Your task to perform on an android device: turn off smart reply in the gmail app Image 0: 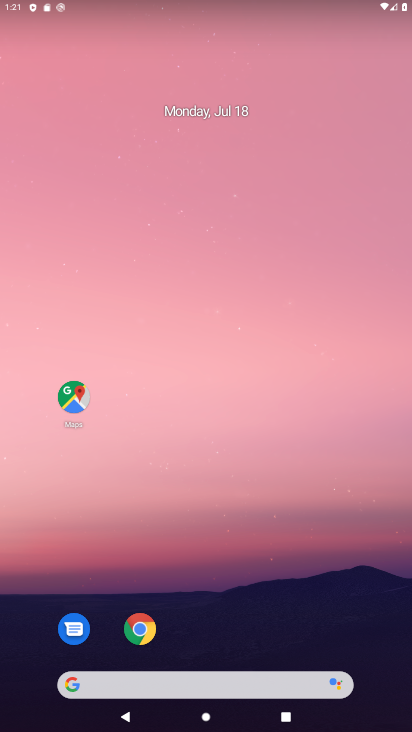
Step 0: press home button
Your task to perform on an android device: turn off smart reply in the gmail app Image 1: 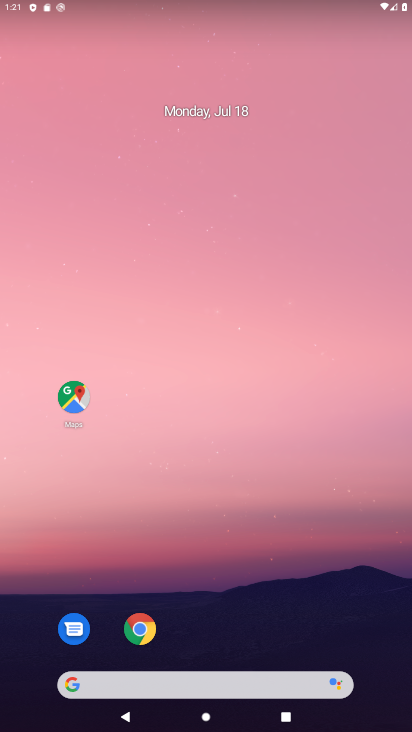
Step 1: drag from (203, 638) to (208, 8)
Your task to perform on an android device: turn off smart reply in the gmail app Image 2: 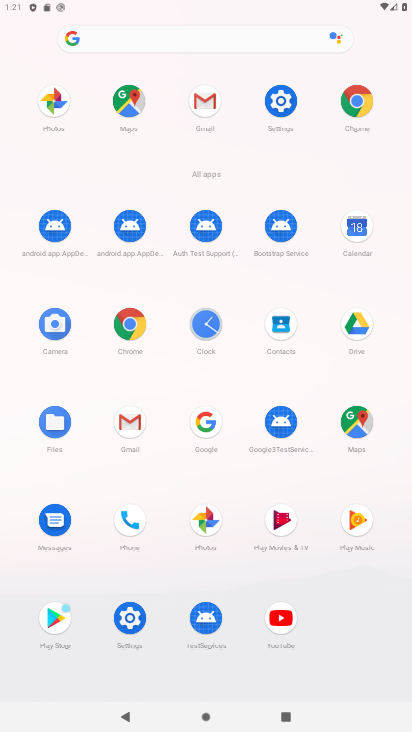
Step 2: click (127, 415)
Your task to perform on an android device: turn off smart reply in the gmail app Image 3: 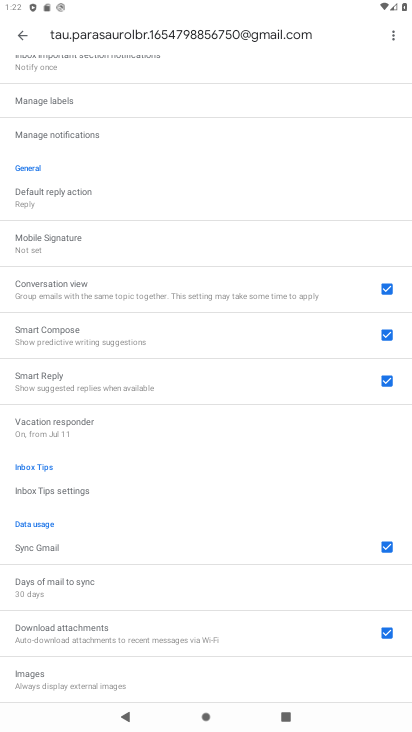
Step 3: click (373, 382)
Your task to perform on an android device: turn off smart reply in the gmail app Image 4: 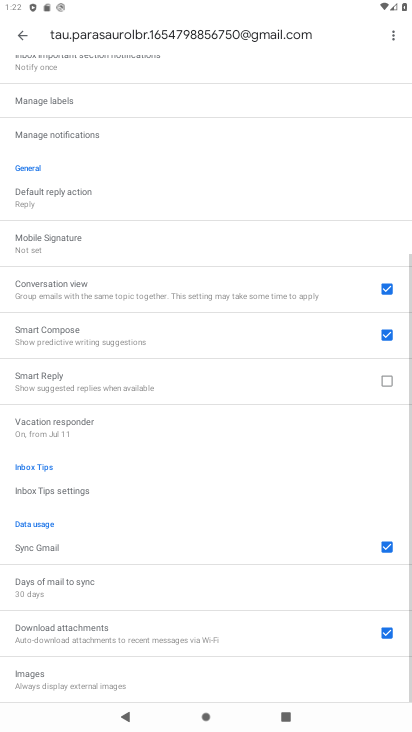
Step 4: task complete